Your task to perform on an android device: Check the weather Image 0: 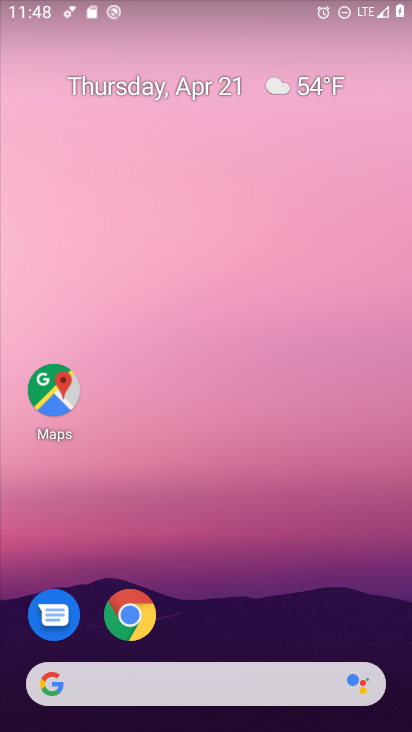
Step 0: drag from (241, 623) to (333, 57)
Your task to perform on an android device: Check the weather Image 1: 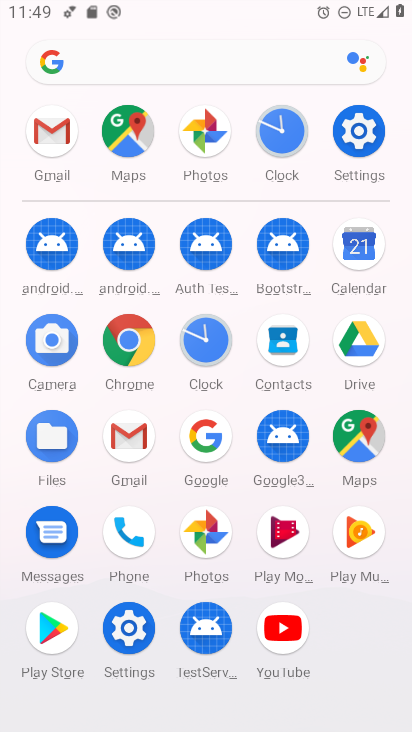
Step 1: click (140, 62)
Your task to perform on an android device: Check the weather Image 2: 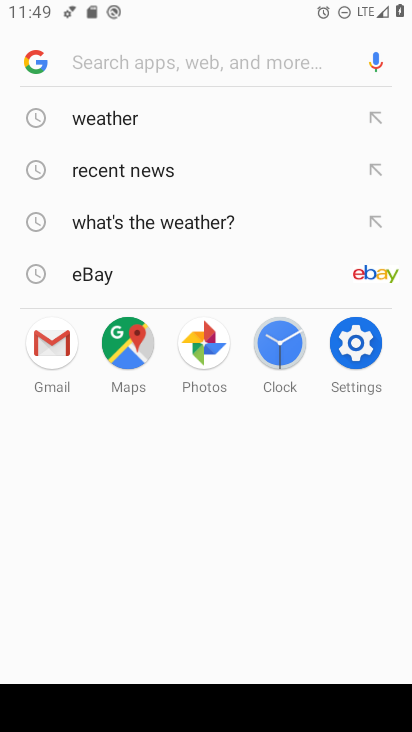
Step 2: type "weather"
Your task to perform on an android device: Check the weather Image 3: 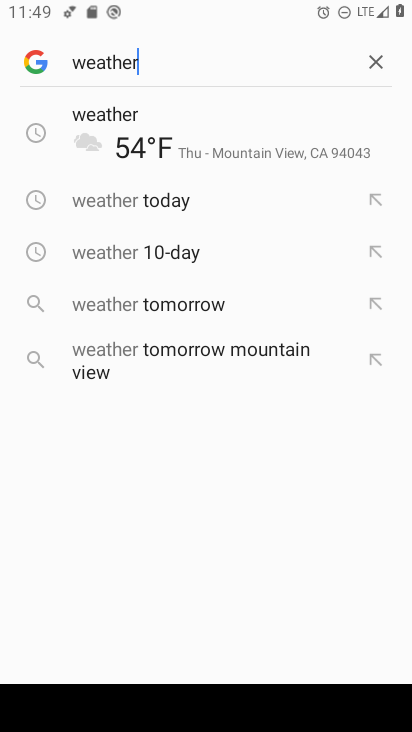
Step 3: click (117, 130)
Your task to perform on an android device: Check the weather Image 4: 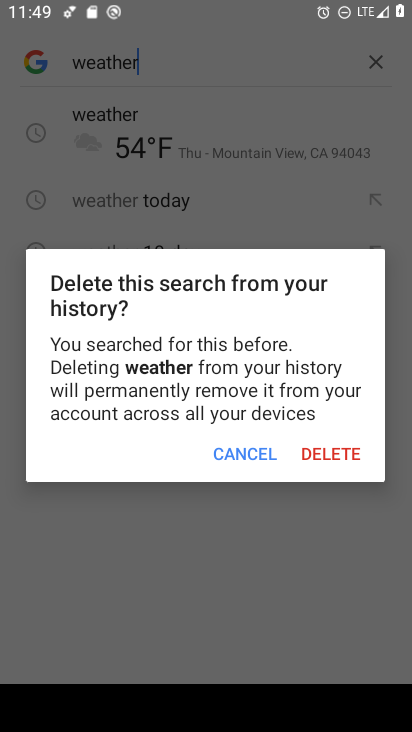
Step 4: click (256, 450)
Your task to perform on an android device: Check the weather Image 5: 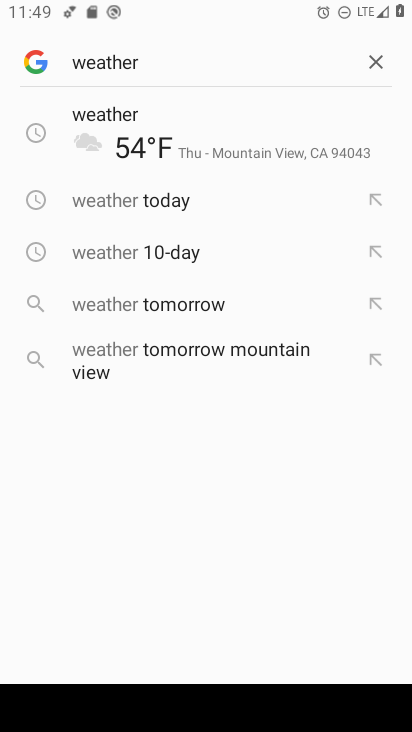
Step 5: click (163, 165)
Your task to perform on an android device: Check the weather Image 6: 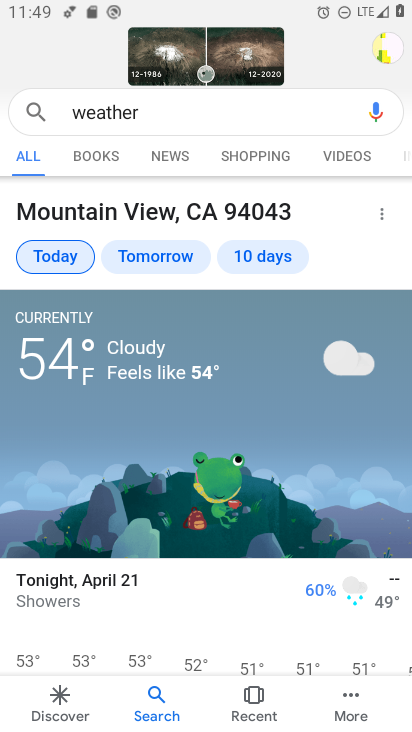
Step 6: task complete